Your task to perform on an android device: Open calendar and show me the third week of next month Image 0: 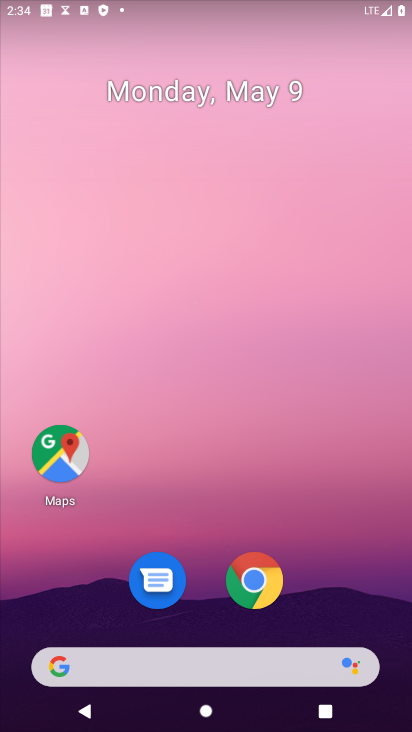
Step 0: click (253, 59)
Your task to perform on an android device: Open calendar and show me the third week of next month Image 1: 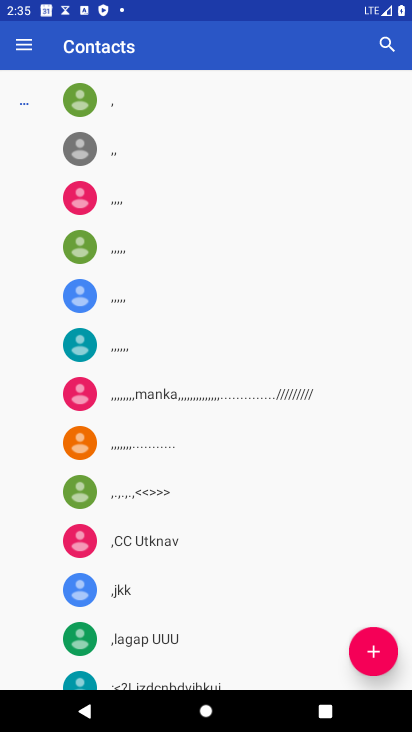
Step 1: press home button
Your task to perform on an android device: Open calendar and show me the third week of next month Image 2: 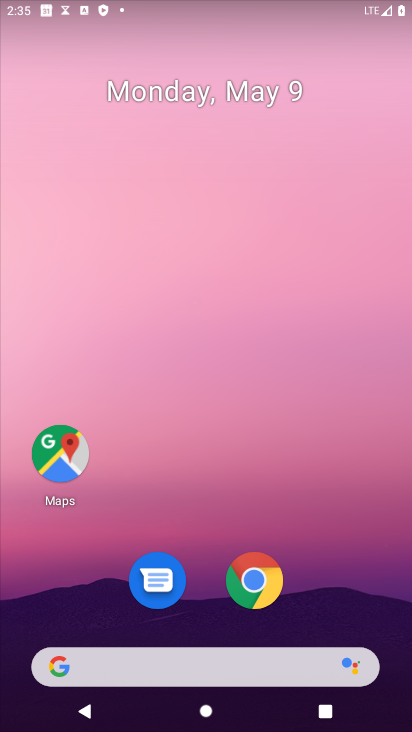
Step 2: drag from (339, 440) to (267, 30)
Your task to perform on an android device: Open calendar and show me the third week of next month Image 3: 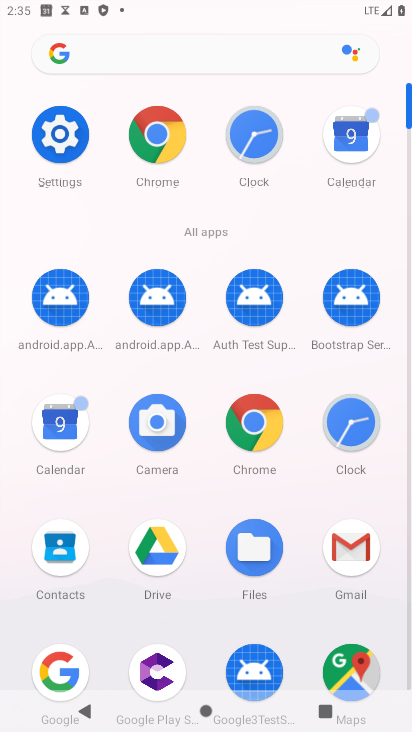
Step 3: click (56, 430)
Your task to perform on an android device: Open calendar and show me the third week of next month Image 4: 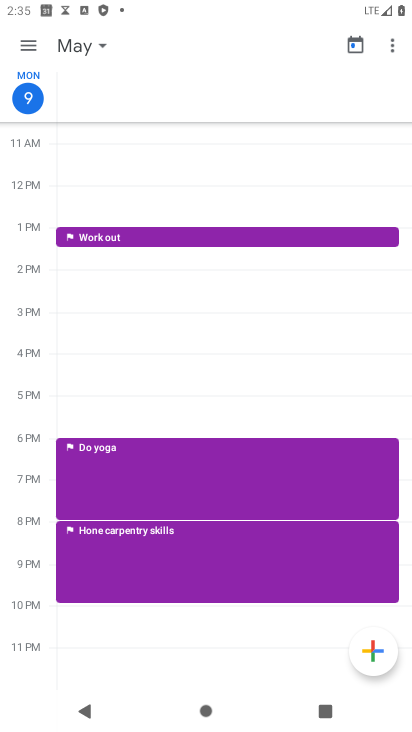
Step 4: click (81, 45)
Your task to perform on an android device: Open calendar and show me the third week of next month Image 5: 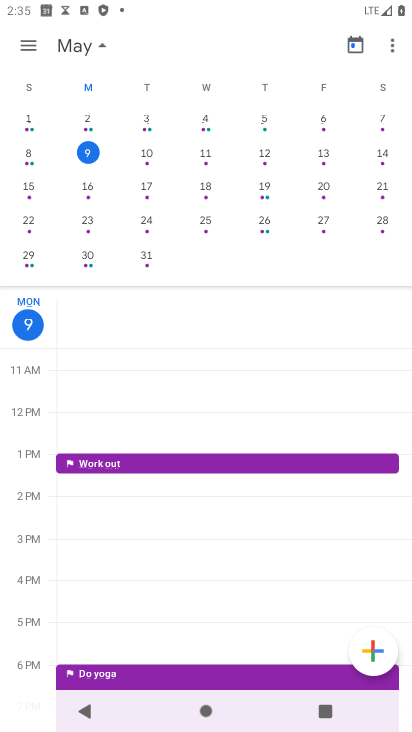
Step 5: click (26, 36)
Your task to perform on an android device: Open calendar and show me the third week of next month Image 6: 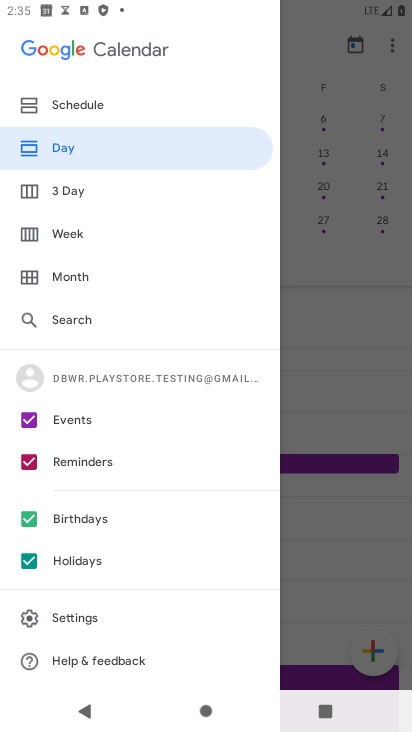
Step 6: click (75, 222)
Your task to perform on an android device: Open calendar and show me the third week of next month Image 7: 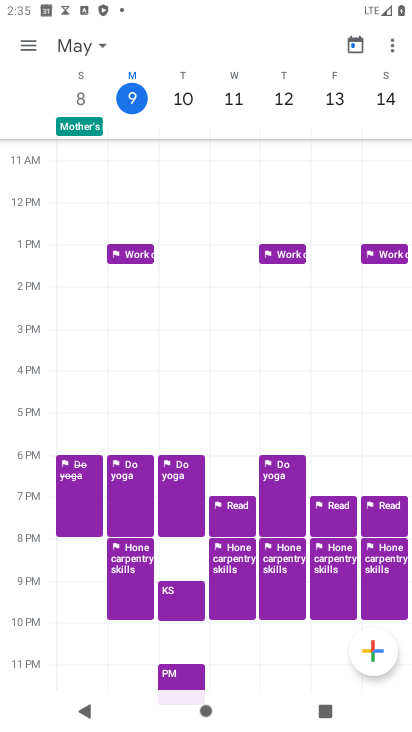
Step 7: click (96, 43)
Your task to perform on an android device: Open calendar and show me the third week of next month Image 8: 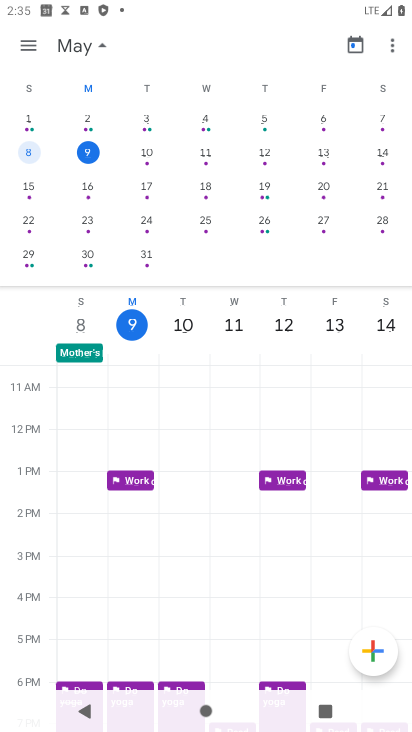
Step 8: drag from (357, 200) to (3, 292)
Your task to perform on an android device: Open calendar and show me the third week of next month Image 9: 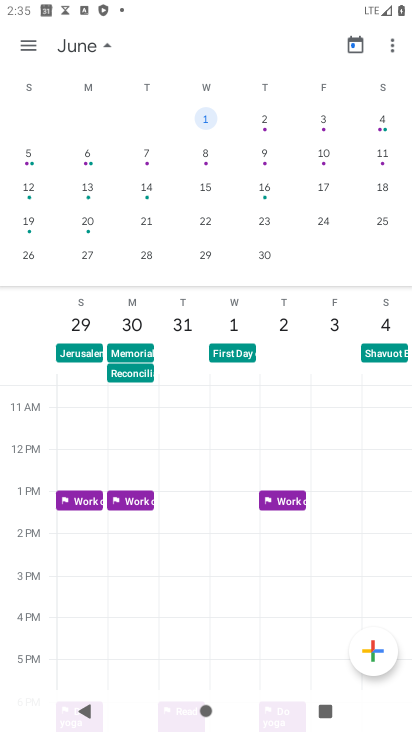
Step 9: click (36, 189)
Your task to perform on an android device: Open calendar and show me the third week of next month Image 10: 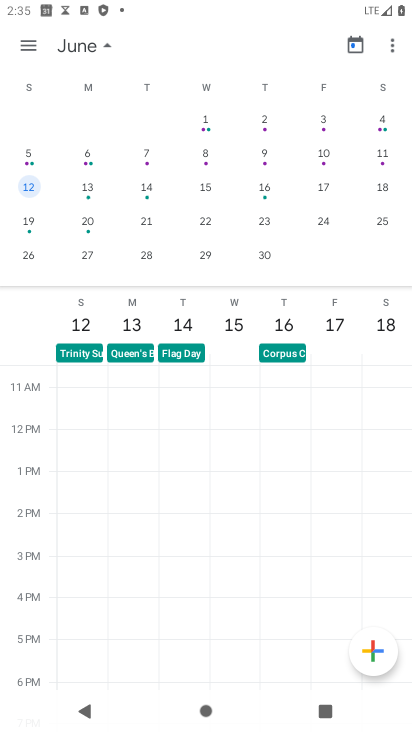
Step 10: task complete